Your task to perform on an android device: change notifications settings Image 0: 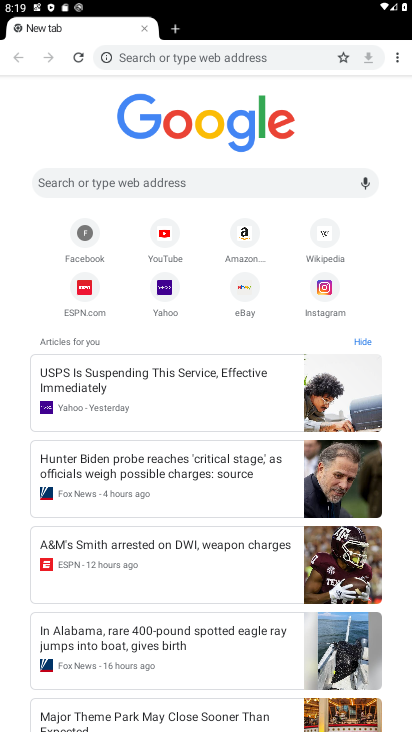
Step 0: press home button
Your task to perform on an android device: change notifications settings Image 1: 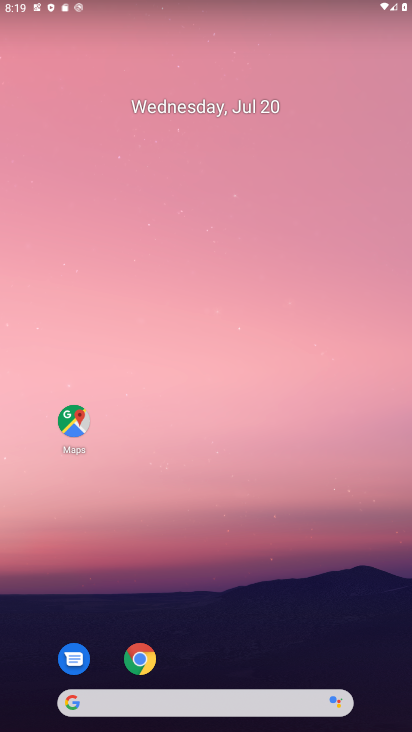
Step 1: drag from (361, 597) to (369, 163)
Your task to perform on an android device: change notifications settings Image 2: 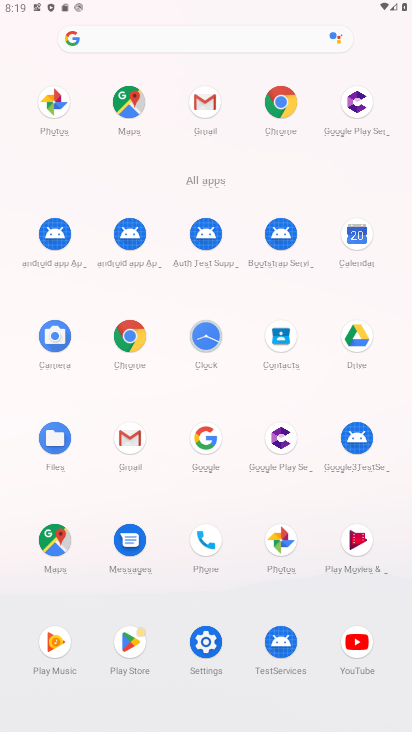
Step 2: click (212, 636)
Your task to perform on an android device: change notifications settings Image 3: 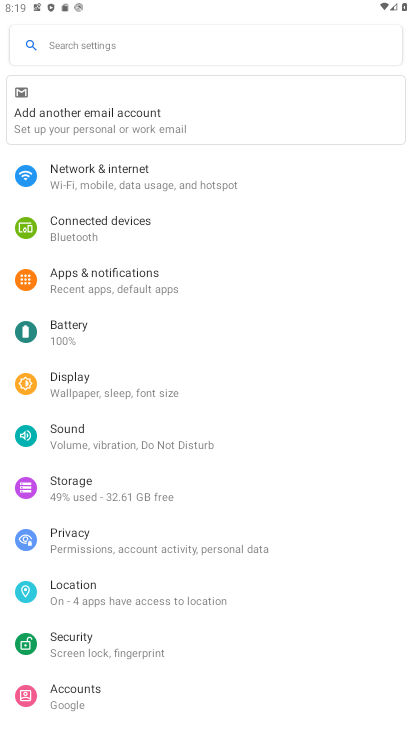
Step 3: click (94, 284)
Your task to perform on an android device: change notifications settings Image 4: 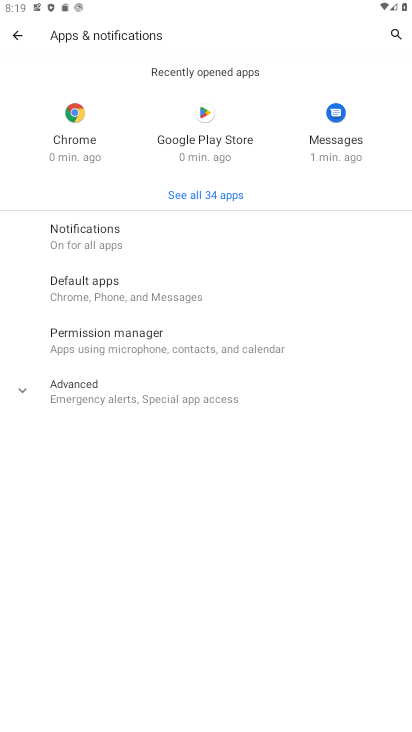
Step 4: click (79, 239)
Your task to perform on an android device: change notifications settings Image 5: 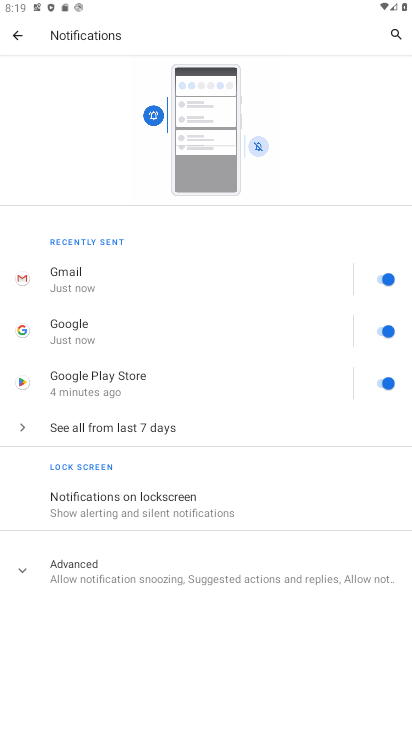
Step 5: click (208, 490)
Your task to perform on an android device: change notifications settings Image 6: 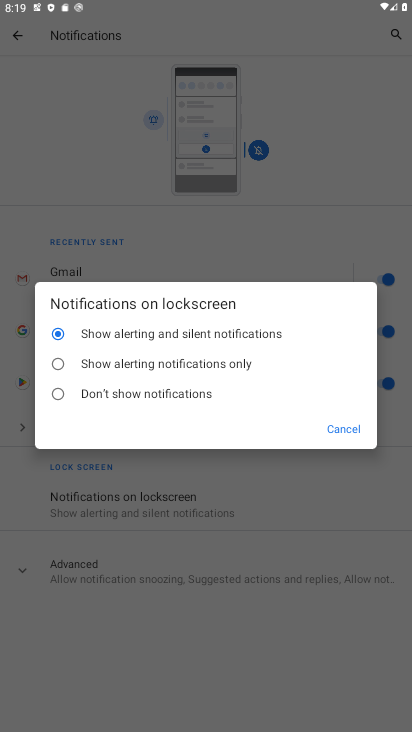
Step 6: click (122, 393)
Your task to perform on an android device: change notifications settings Image 7: 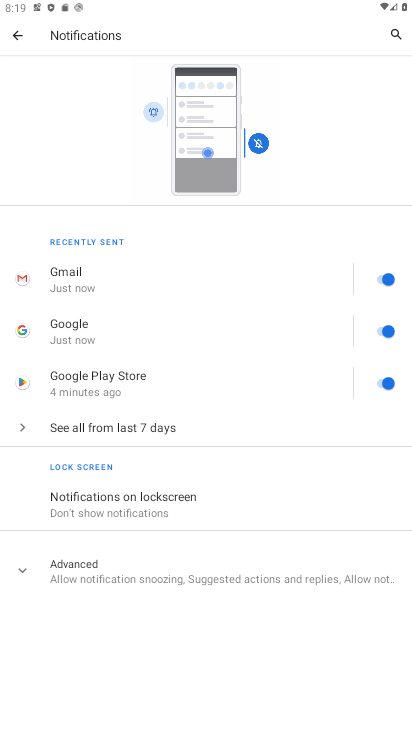
Step 7: task complete